Your task to perform on an android device: Toggle the flashlight Image 0: 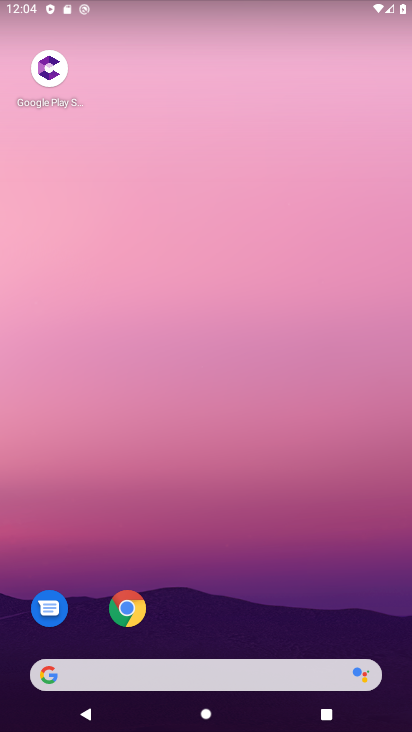
Step 0: drag from (289, 617) to (254, 149)
Your task to perform on an android device: Toggle the flashlight Image 1: 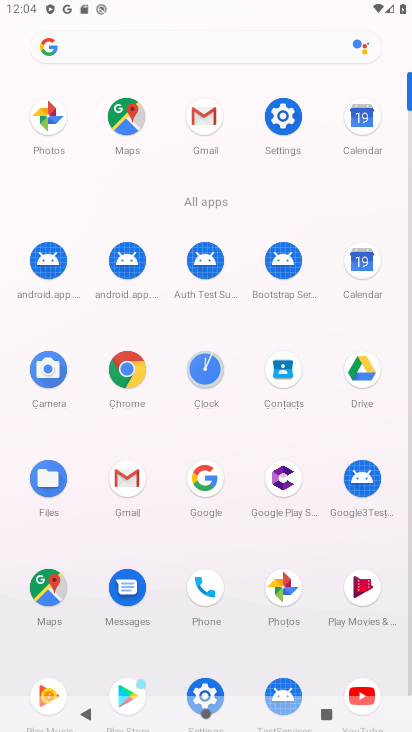
Step 1: click (274, 115)
Your task to perform on an android device: Toggle the flashlight Image 2: 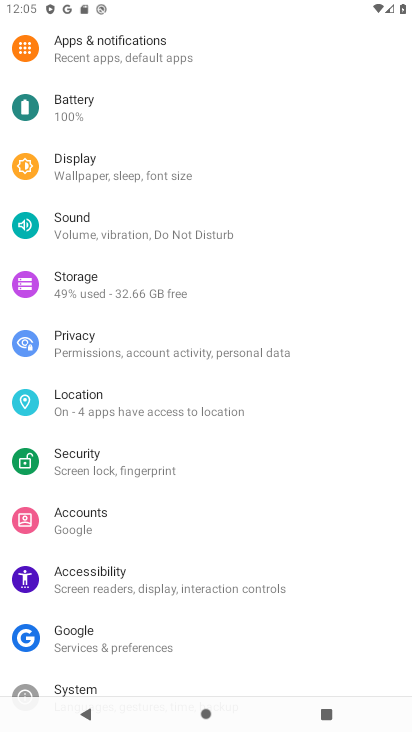
Step 2: task complete